Your task to perform on an android device: Open Chrome and go to the settings page Image 0: 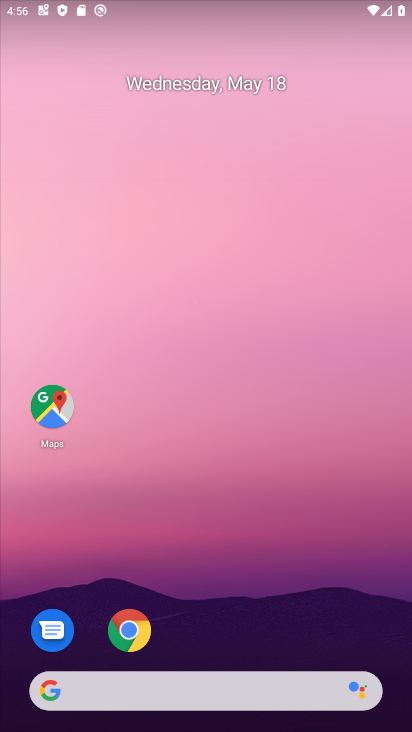
Step 0: drag from (188, 666) to (193, 162)
Your task to perform on an android device: Open Chrome and go to the settings page Image 1: 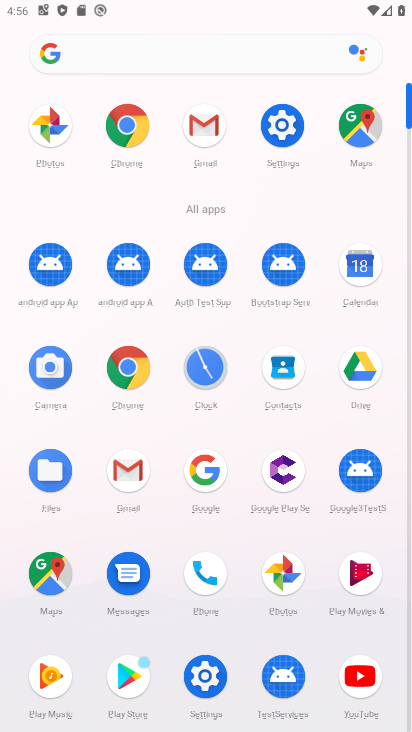
Step 1: click (123, 370)
Your task to perform on an android device: Open Chrome and go to the settings page Image 2: 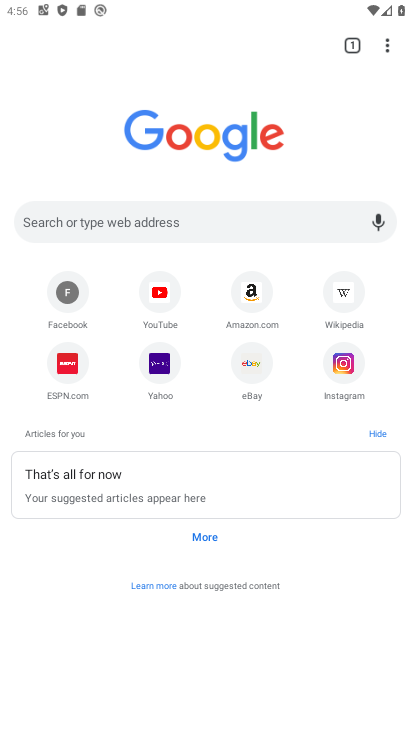
Step 2: click (390, 43)
Your task to perform on an android device: Open Chrome and go to the settings page Image 3: 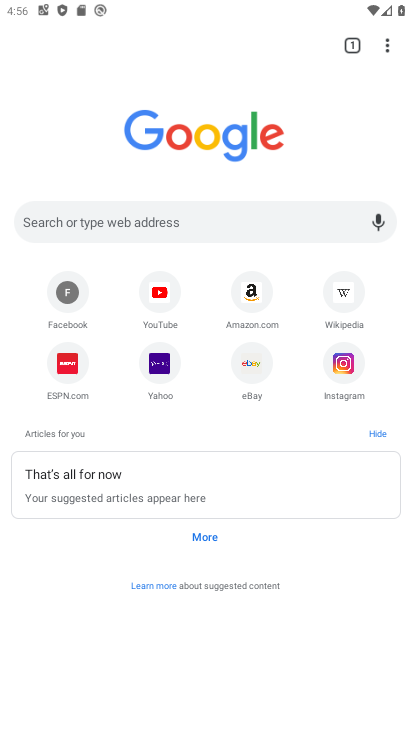
Step 3: click (387, 41)
Your task to perform on an android device: Open Chrome and go to the settings page Image 4: 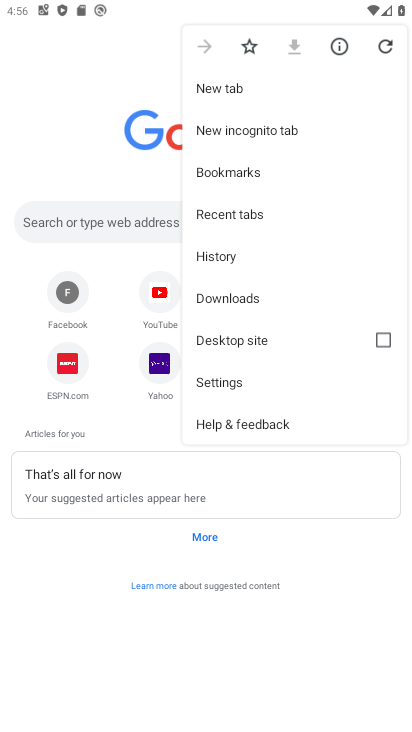
Step 4: click (227, 385)
Your task to perform on an android device: Open Chrome and go to the settings page Image 5: 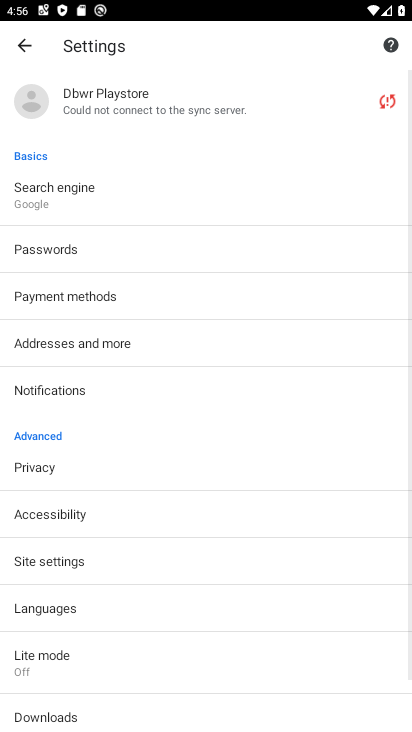
Step 5: task complete